Your task to perform on an android device: install app "ZOOM Cloud Meetings" Image 0: 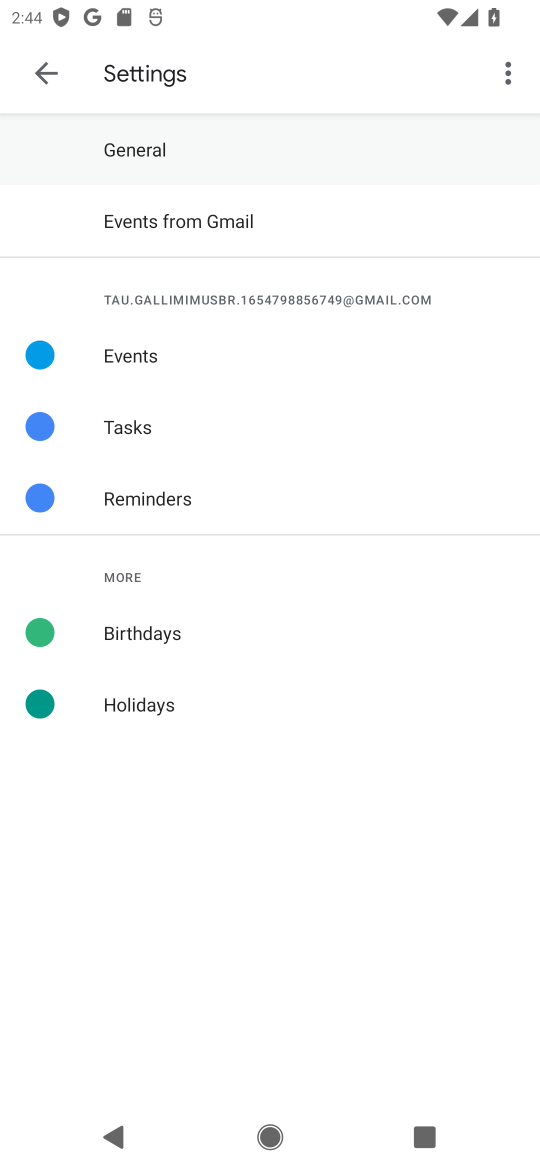
Step 0: press home button
Your task to perform on an android device: install app "ZOOM Cloud Meetings" Image 1: 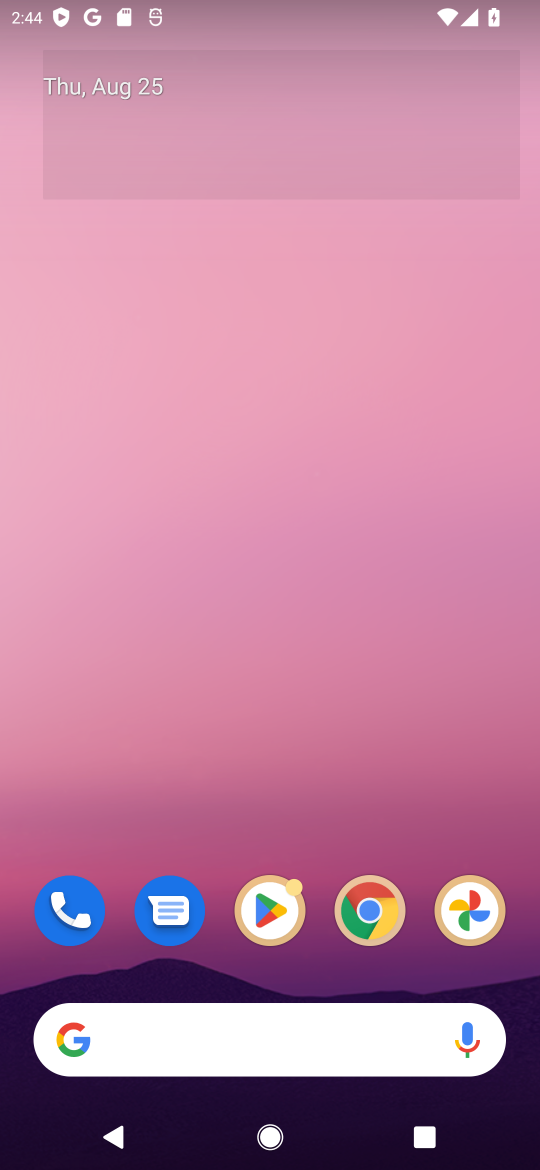
Step 1: drag from (337, 857) to (409, 113)
Your task to perform on an android device: install app "ZOOM Cloud Meetings" Image 2: 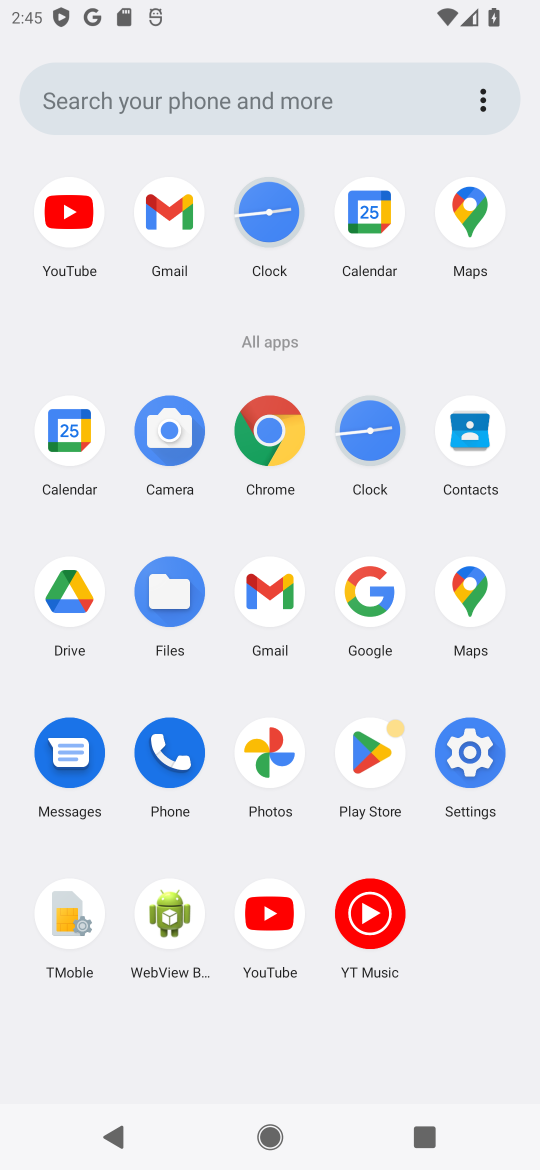
Step 2: click (364, 764)
Your task to perform on an android device: install app "ZOOM Cloud Meetings" Image 3: 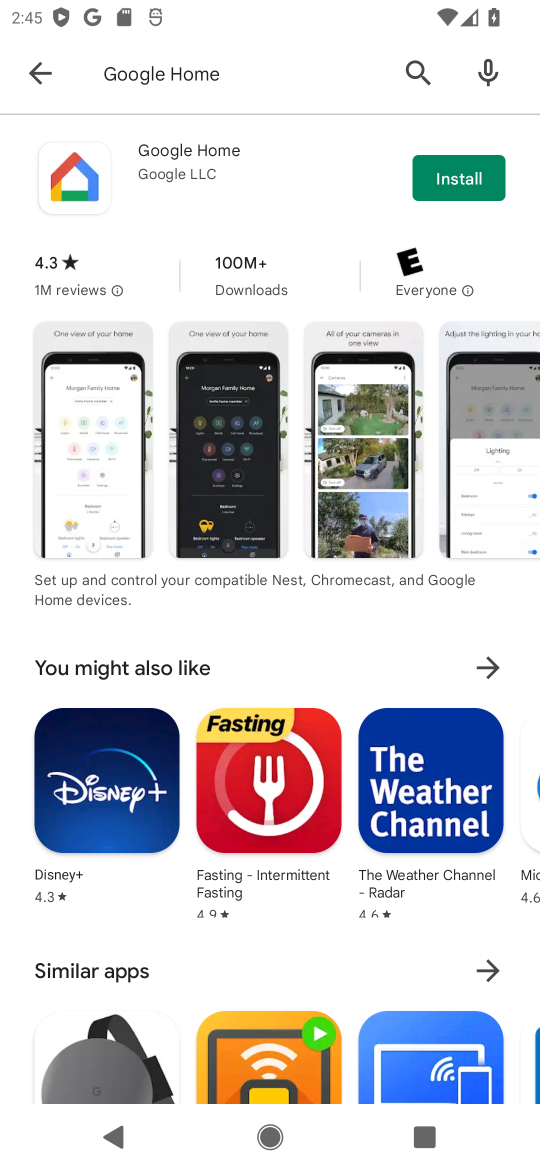
Step 3: press back button
Your task to perform on an android device: install app "ZOOM Cloud Meetings" Image 4: 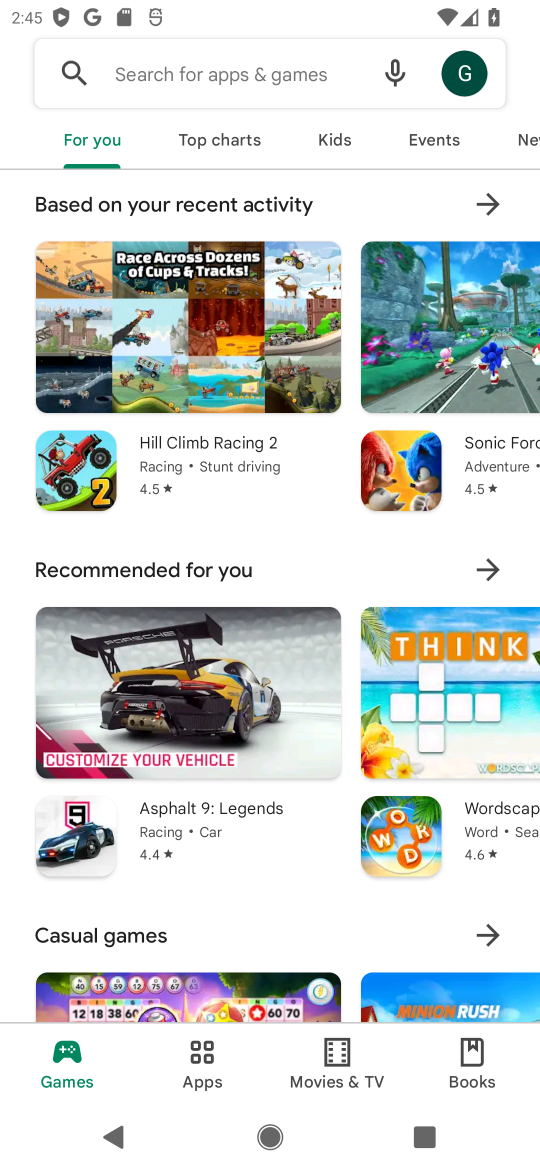
Step 4: click (196, 74)
Your task to perform on an android device: install app "ZOOM Cloud Meetings" Image 5: 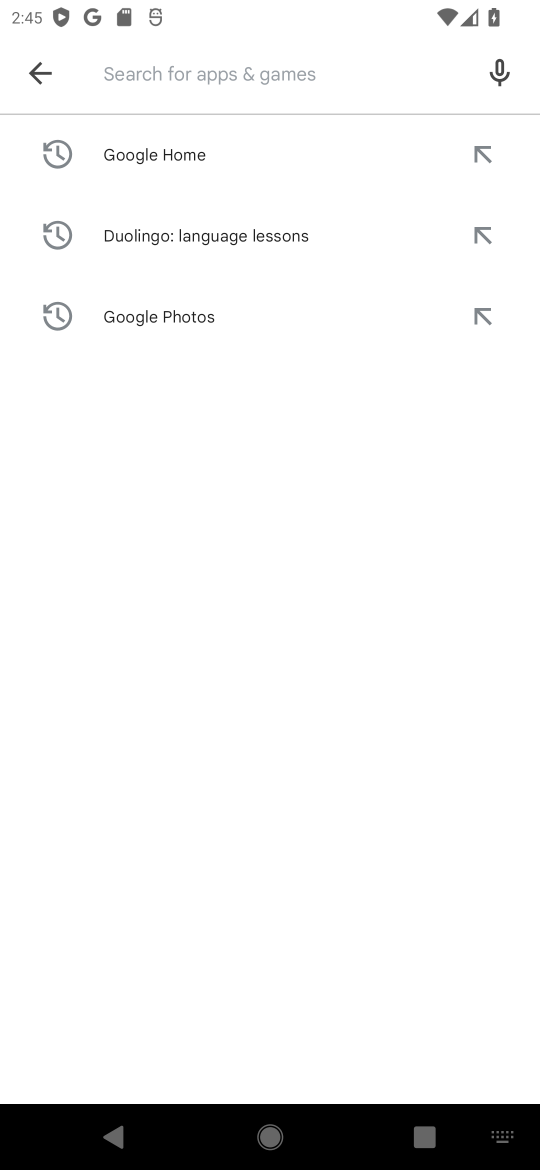
Step 5: type "ZOOM Cloud Meetings"
Your task to perform on an android device: install app "ZOOM Cloud Meetings" Image 6: 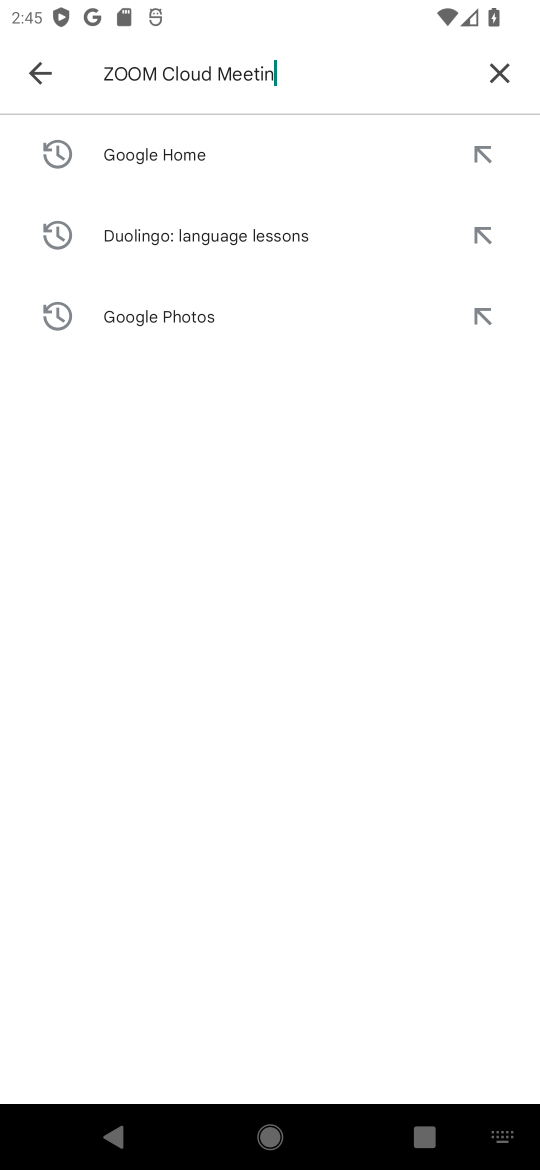
Step 6: press enter
Your task to perform on an android device: install app "ZOOM Cloud Meetings" Image 7: 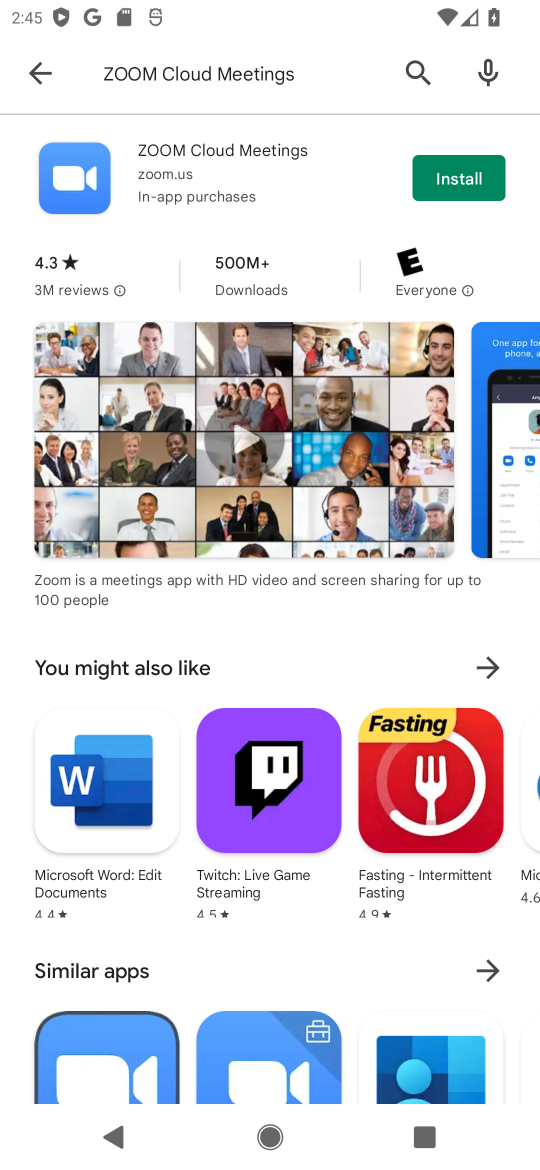
Step 7: click (462, 178)
Your task to perform on an android device: install app "ZOOM Cloud Meetings" Image 8: 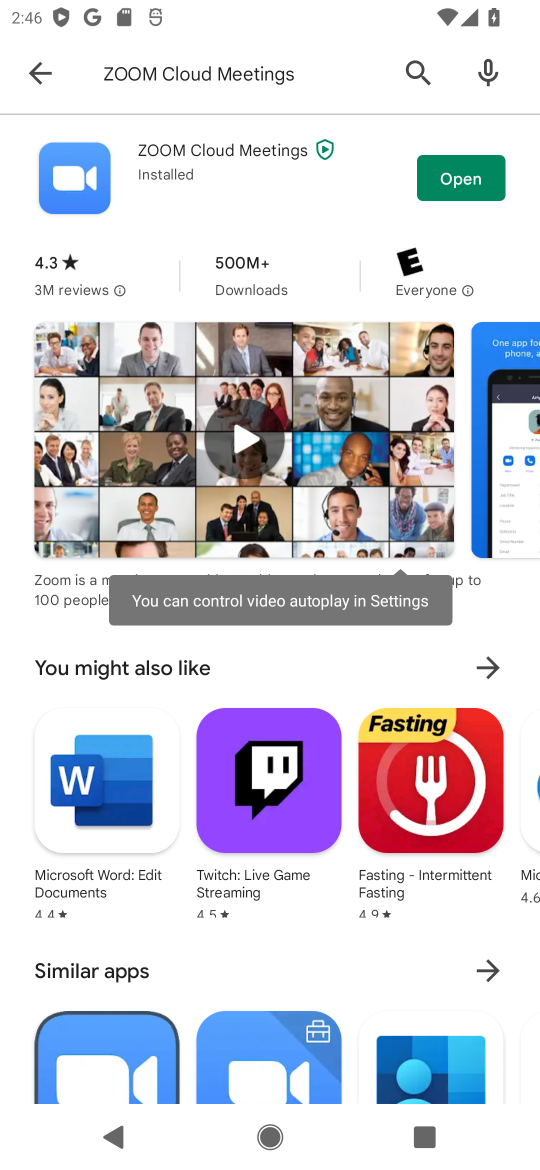
Step 8: task complete